Your task to perform on an android device: What's on my calendar tomorrow? Image 0: 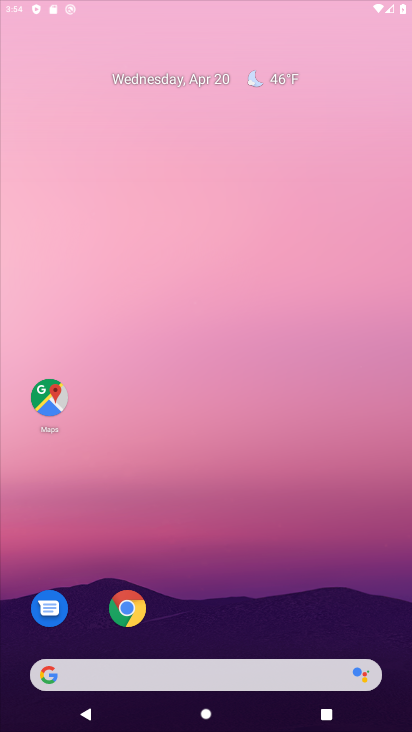
Step 0: click (285, 29)
Your task to perform on an android device: What's on my calendar tomorrow? Image 1: 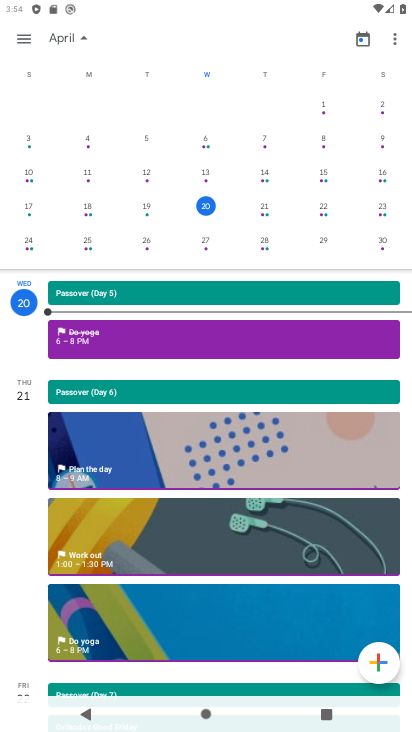
Step 1: click (28, 34)
Your task to perform on an android device: What's on my calendar tomorrow? Image 2: 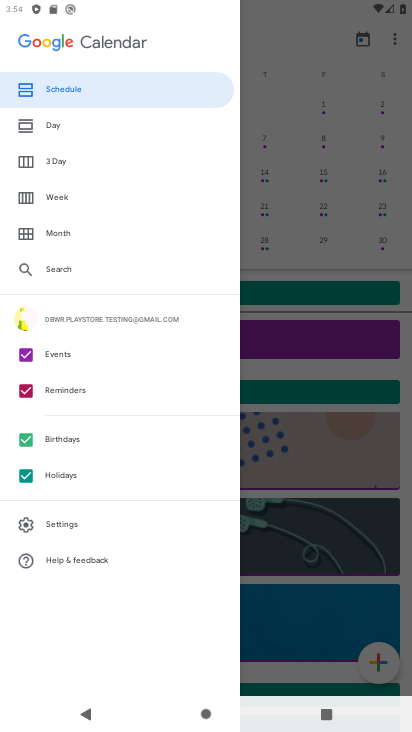
Step 2: click (65, 128)
Your task to perform on an android device: What's on my calendar tomorrow? Image 3: 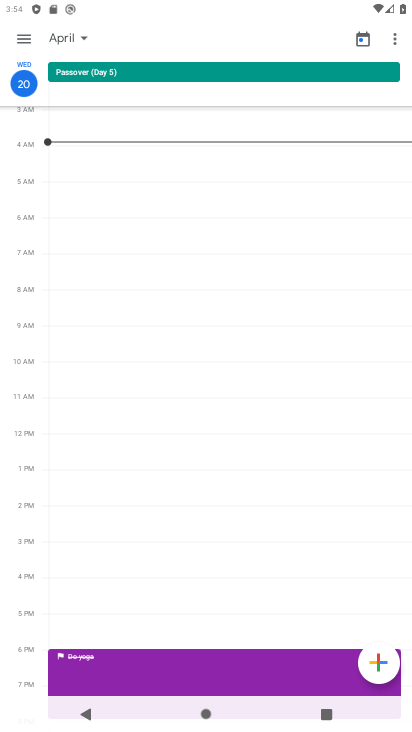
Step 3: click (13, 34)
Your task to perform on an android device: What's on my calendar tomorrow? Image 4: 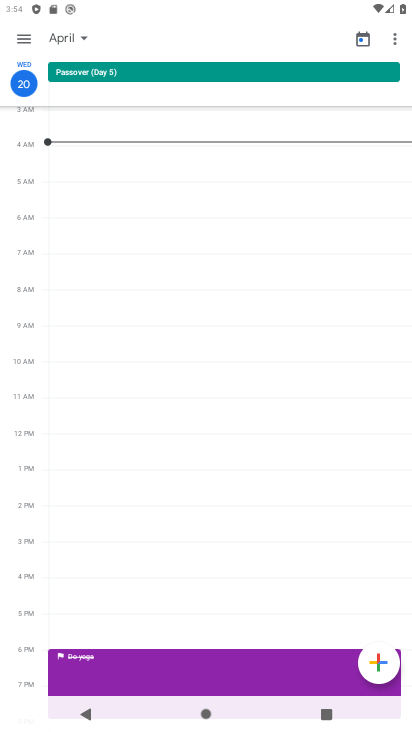
Step 4: click (33, 33)
Your task to perform on an android device: What's on my calendar tomorrow? Image 5: 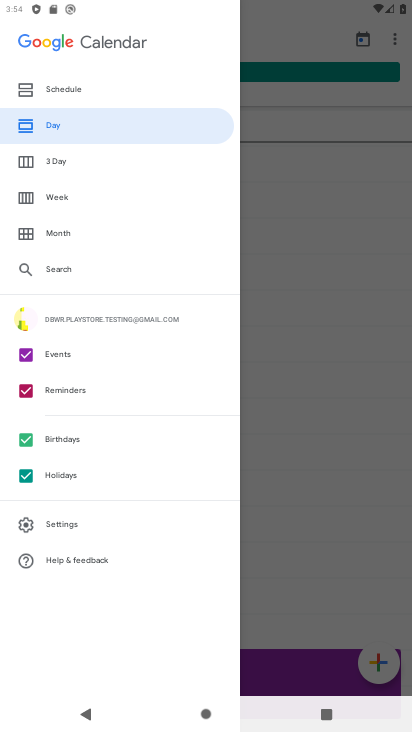
Step 5: click (63, 162)
Your task to perform on an android device: What's on my calendar tomorrow? Image 6: 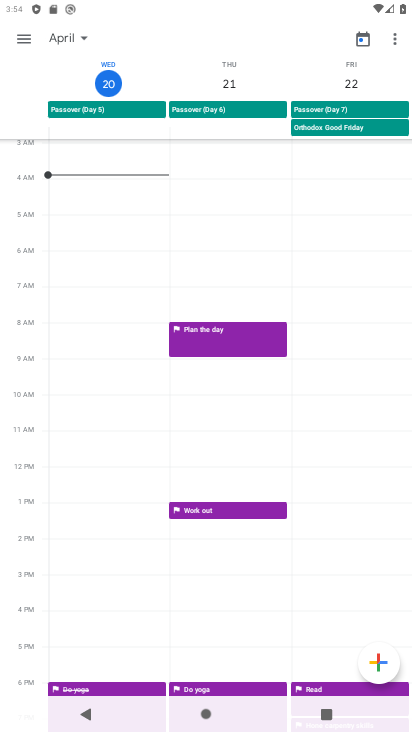
Step 6: click (231, 82)
Your task to perform on an android device: What's on my calendar tomorrow? Image 7: 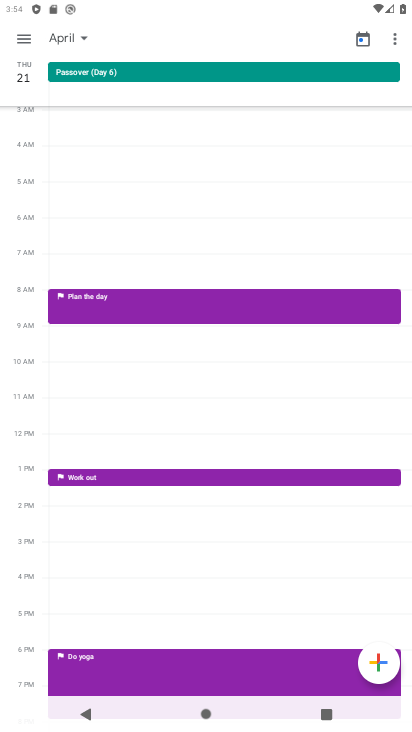
Step 7: task complete